Your task to perform on an android device: Find coffee shops on Maps Image 0: 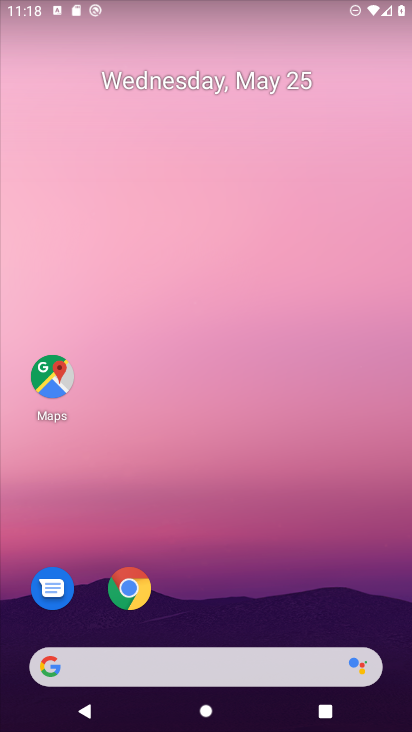
Step 0: press home button
Your task to perform on an android device: Find coffee shops on Maps Image 1: 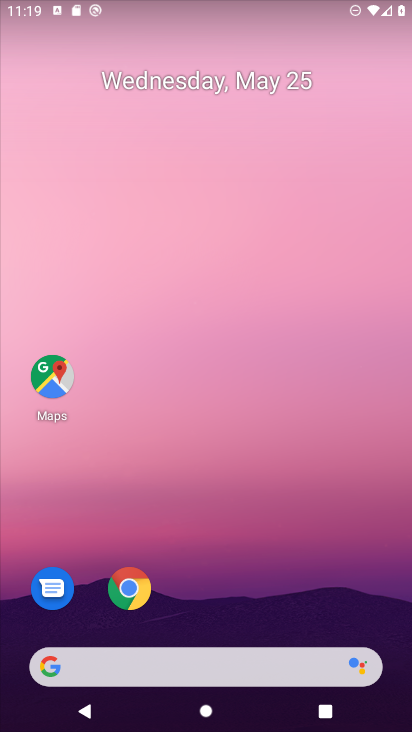
Step 1: click (45, 368)
Your task to perform on an android device: Find coffee shops on Maps Image 2: 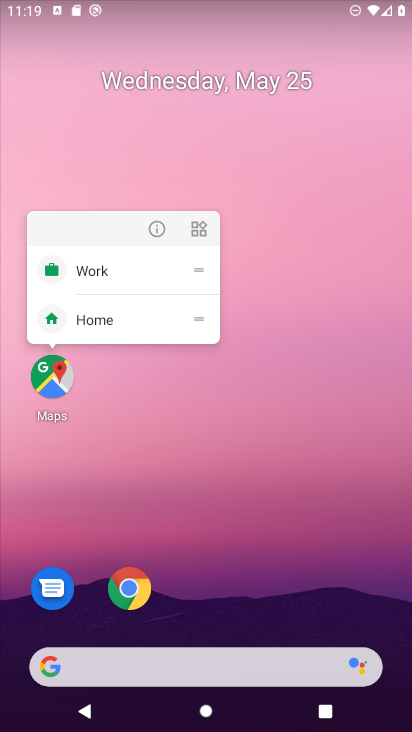
Step 2: click (45, 376)
Your task to perform on an android device: Find coffee shops on Maps Image 3: 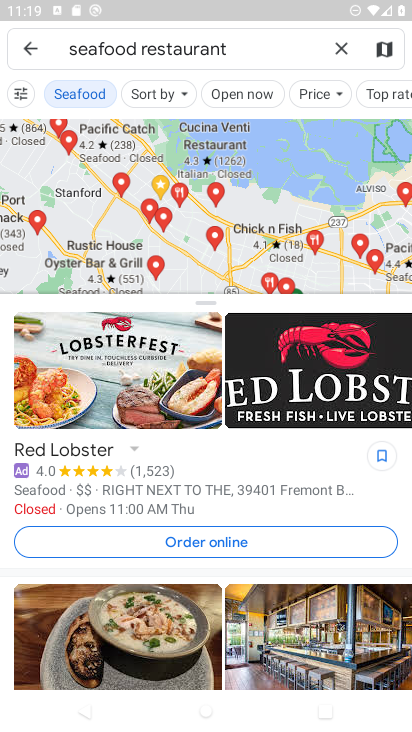
Step 3: click (334, 46)
Your task to perform on an android device: Find coffee shops on Maps Image 4: 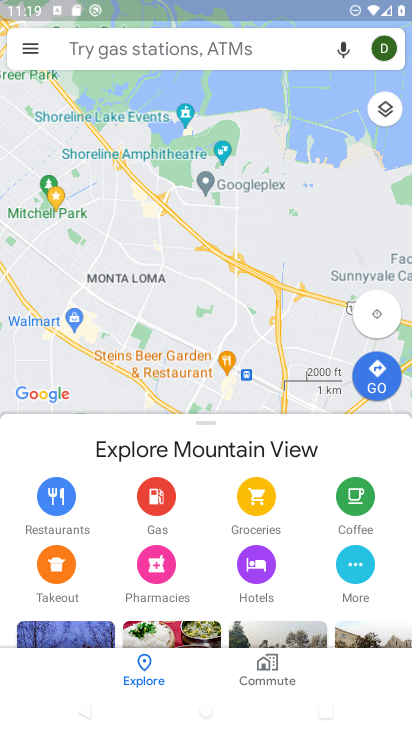
Step 4: click (220, 46)
Your task to perform on an android device: Find coffee shops on Maps Image 5: 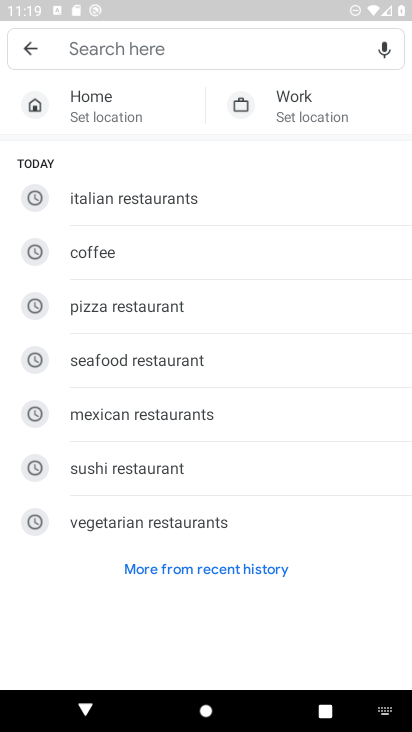
Step 5: click (92, 256)
Your task to perform on an android device: Find coffee shops on Maps Image 6: 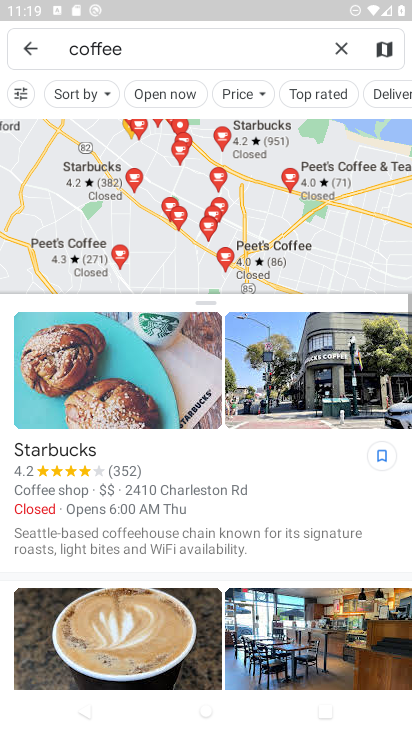
Step 6: task complete